Your task to perform on an android device: Show me the alarms in the clock app Image 0: 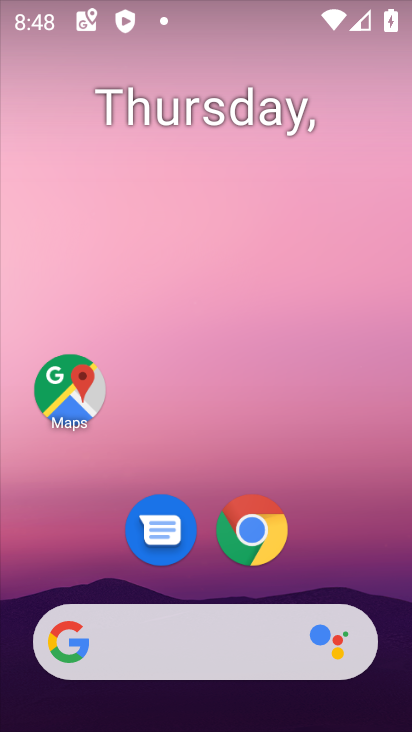
Step 0: drag from (206, 686) to (186, 251)
Your task to perform on an android device: Show me the alarms in the clock app Image 1: 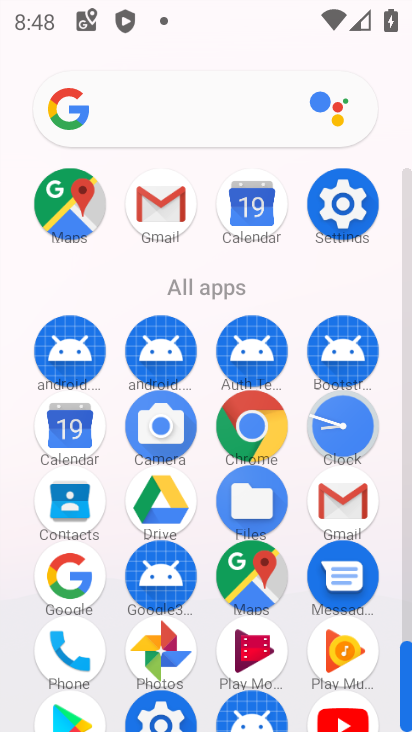
Step 1: click (357, 426)
Your task to perform on an android device: Show me the alarms in the clock app Image 2: 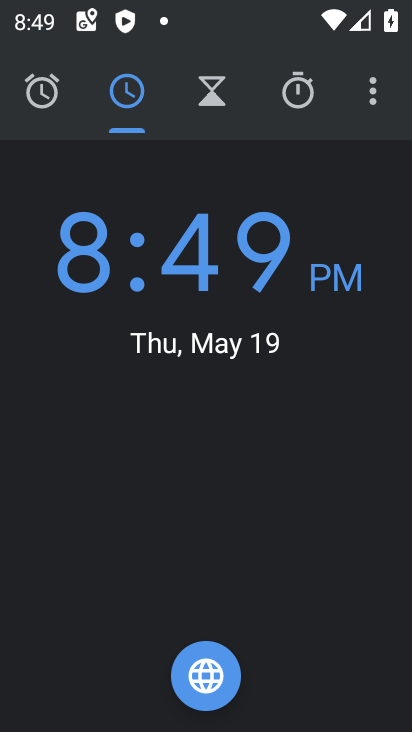
Step 2: click (53, 105)
Your task to perform on an android device: Show me the alarms in the clock app Image 3: 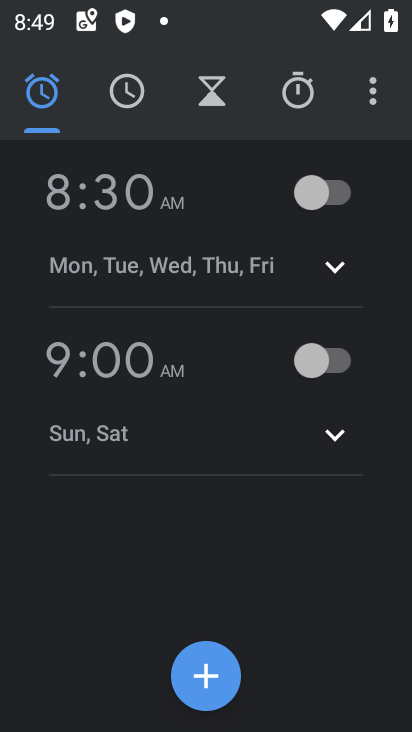
Step 3: task complete